Your task to perform on an android device: stop showing notifications on the lock screen Image 0: 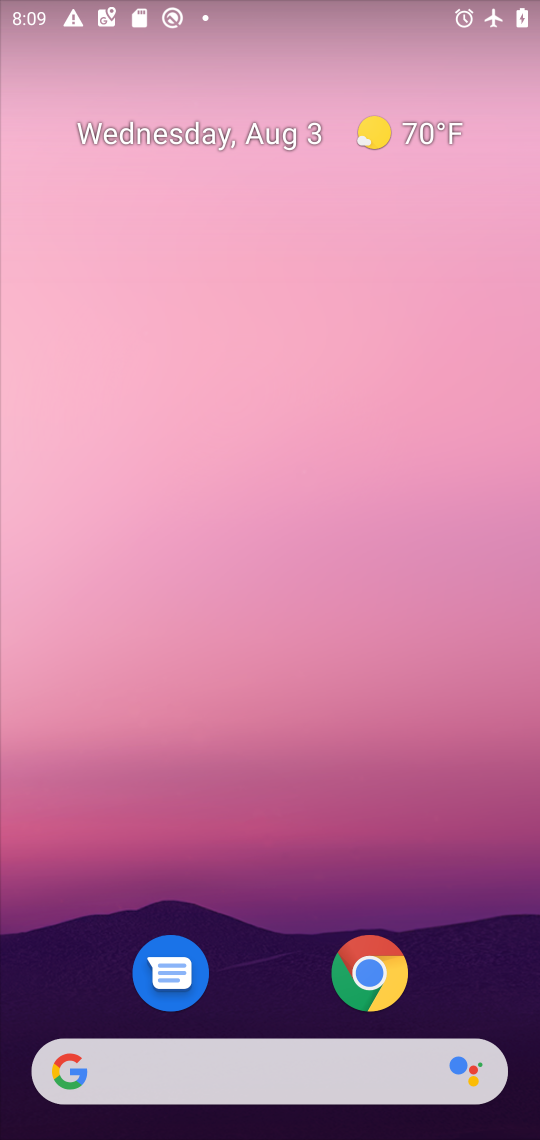
Step 0: press home button
Your task to perform on an android device: stop showing notifications on the lock screen Image 1: 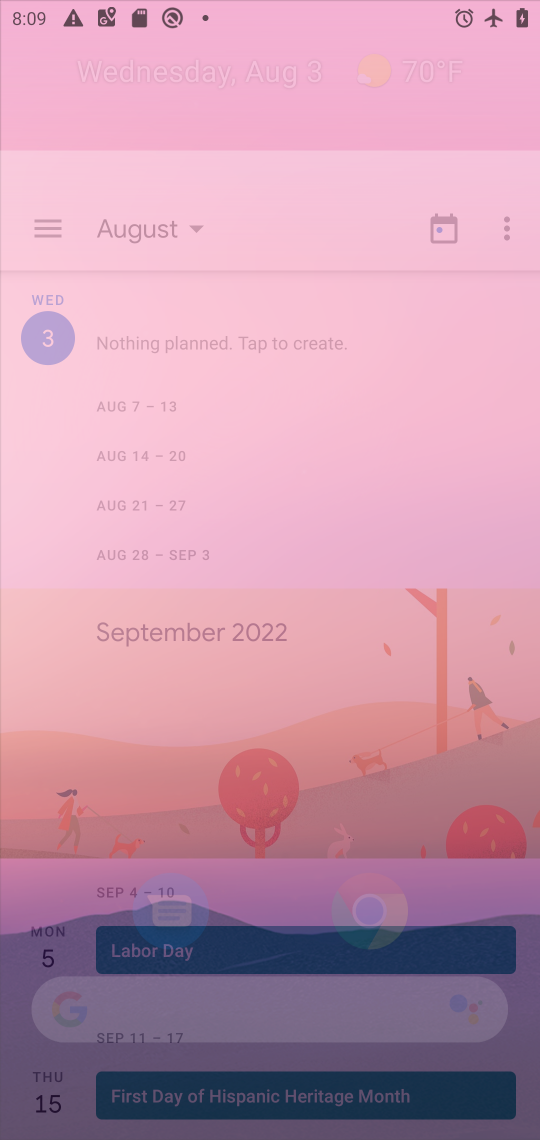
Step 1: drag from (285, 983) to (388, 211)
Your task to perform on an android device: stop showing notifications on the lock screen Image 2: 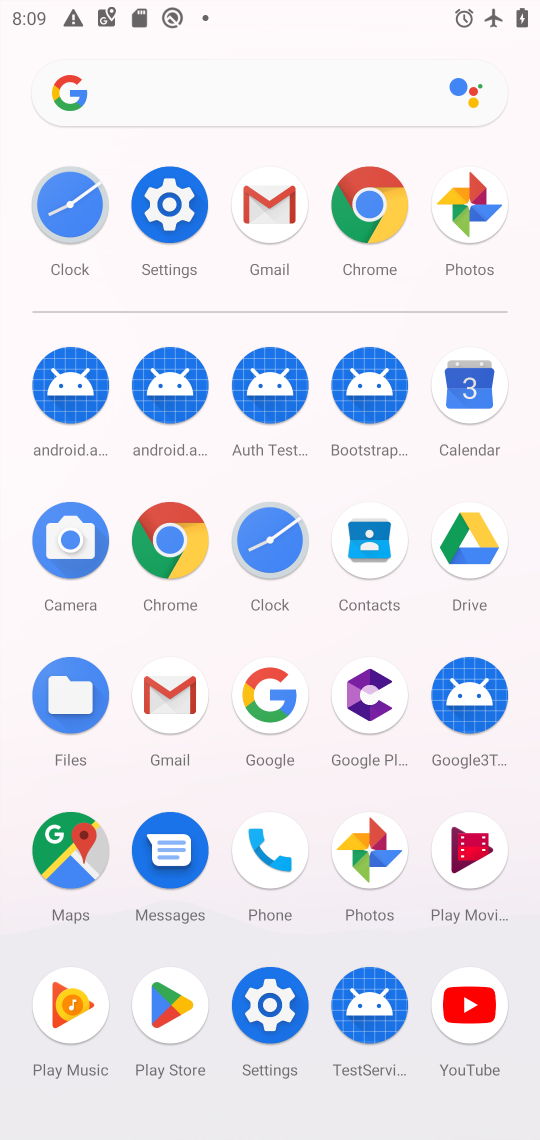
Step 2: click (171, 190)
Your task to perform on an android device: stop showing notifications on the lock screen Image 3: 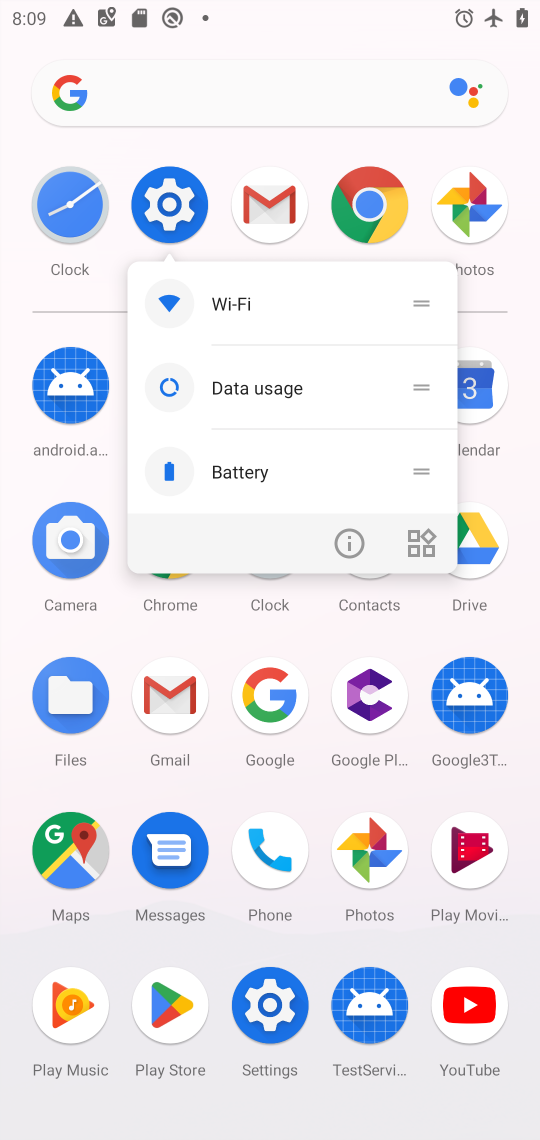
Step 3: click (155, 191)
Your task to perform on an android device: stop showing notifications on the lock screen Image 4: 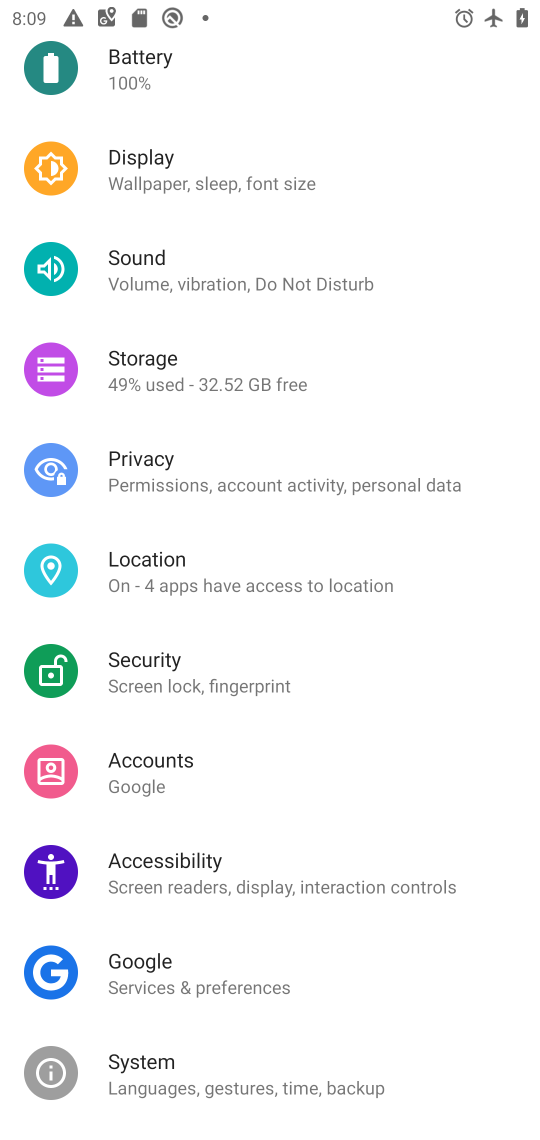
Step 4: drag from (202, 148) to (174, 873)
Your task to perform on an android device: stop showing notifications on the lock screen Image 5: 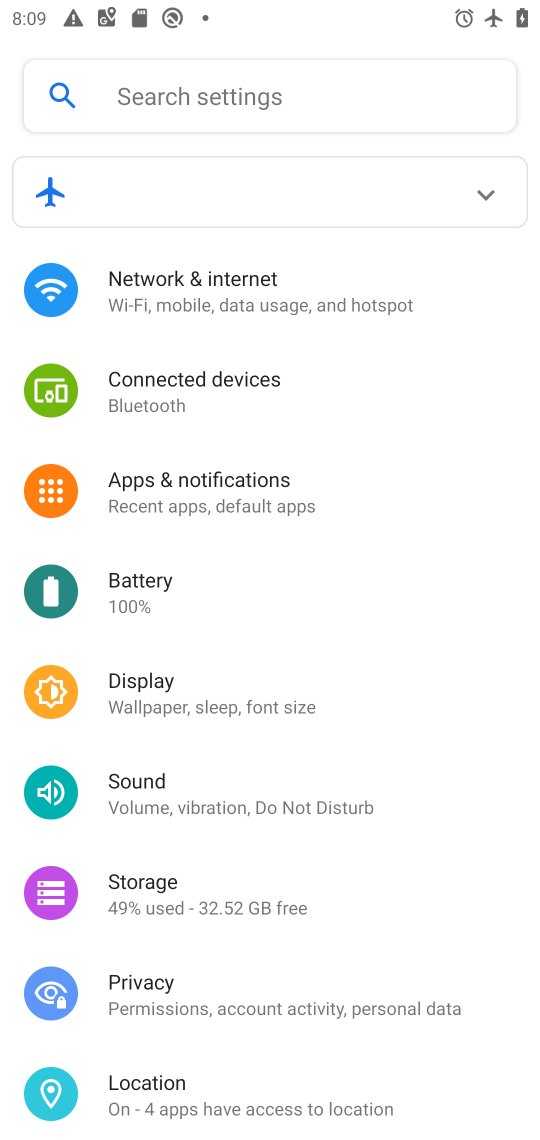
Step 5: click (257, 492)
Your task to perform on an android device: stop showing notifications on the lock screen Image 6: 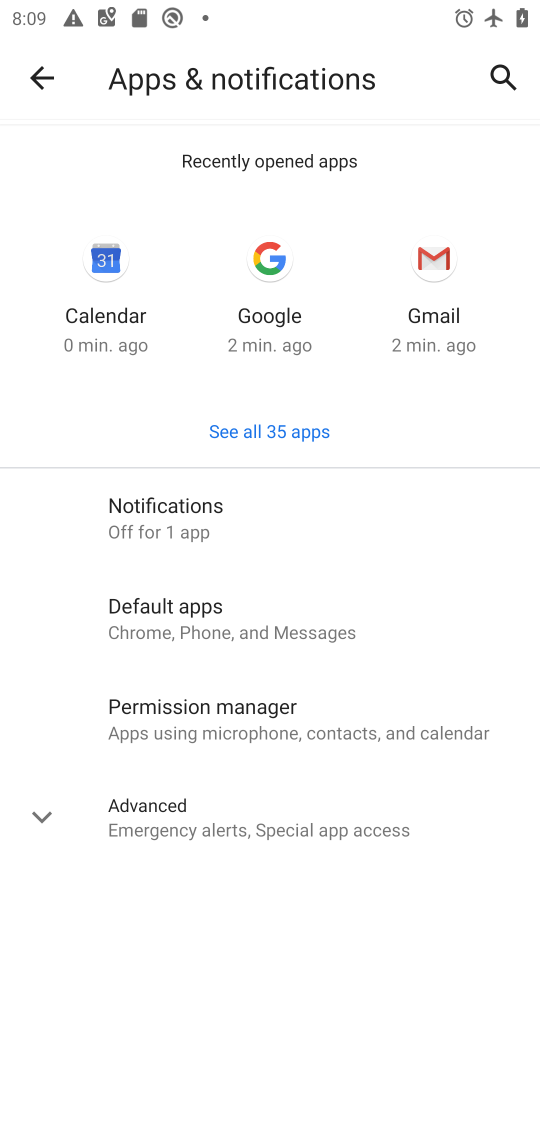
Step 6: click (220, 512)
Your task to perform on an android device: stop showing notifications on the lock screen Image 7: 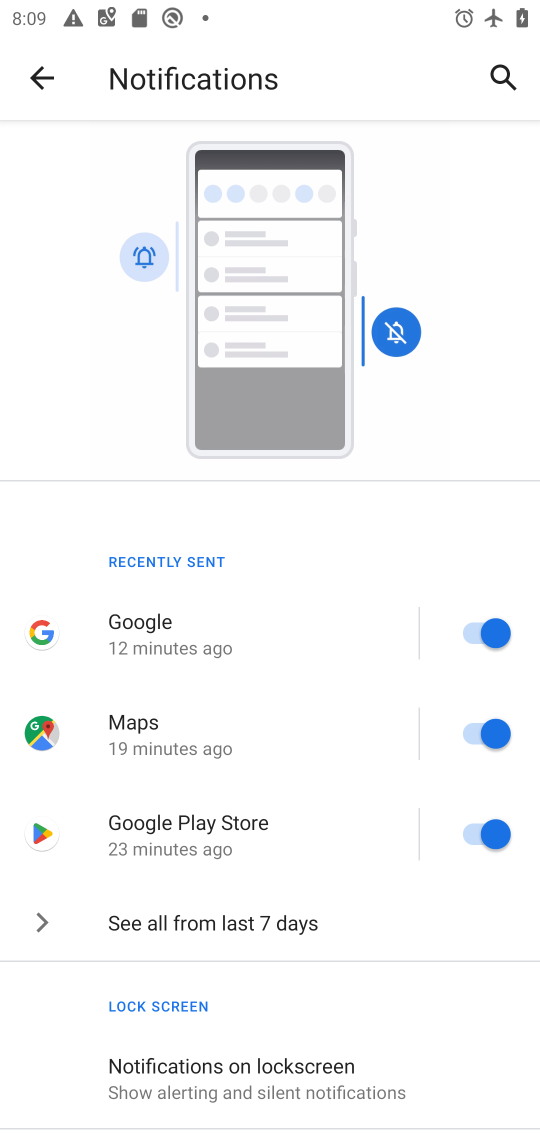
Step 7: click (281, 1083)
Your task to perform on an android device: stop showing notifications on the lock screen Image 8: 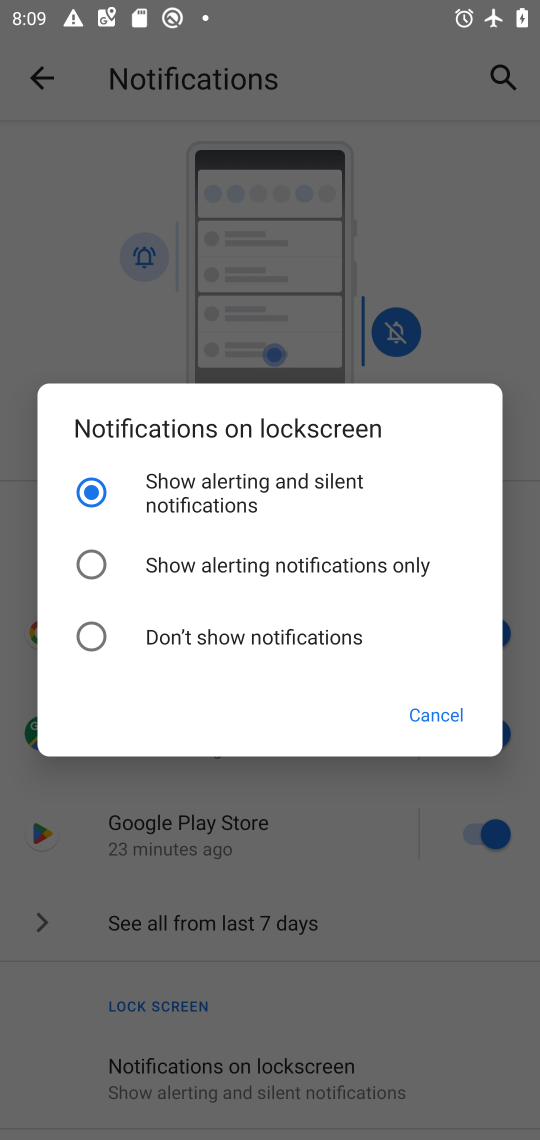
Step 8: click (93, 642)
Your task to perform on an android device: stop showing notifications on the lock screen Image 9: 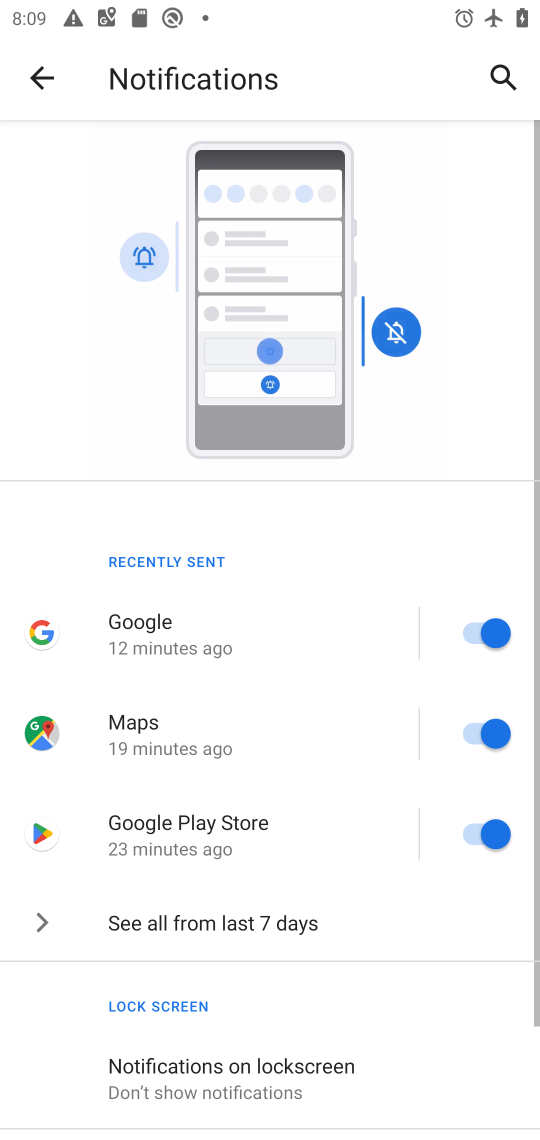
Step 9: task complete